Your task to perform on an android device: What is the recent news? Image 0: 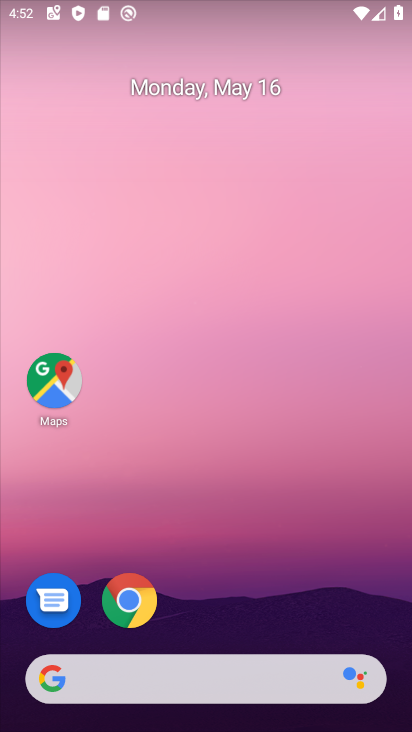
Step 0: drag from (179, 637) to (130, 78)
Your task to perform on an android device: What is the recent news? Image 1: 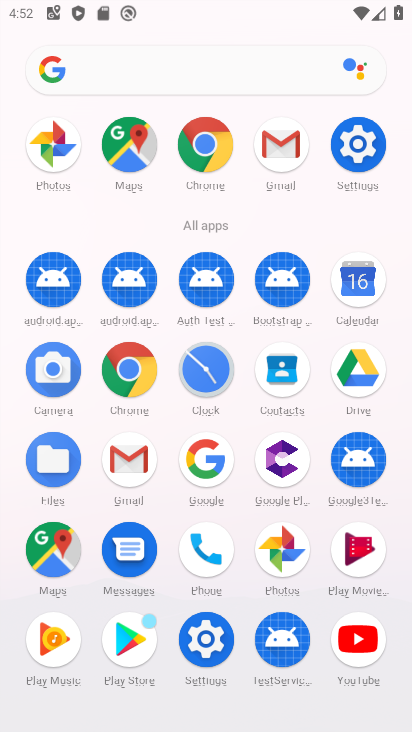
Step 1: click (208, 459)
Your task to perform on an android device: What is the recent news? Image 2: 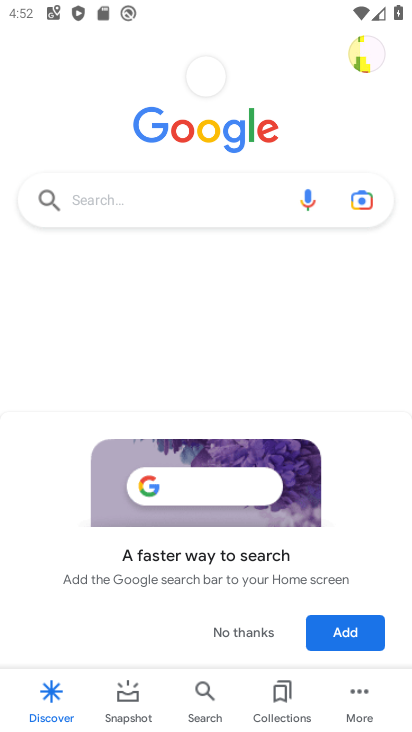
Step 2: click (103, 215)
Your task to perform on an android device: What is the recent news? Image 3: 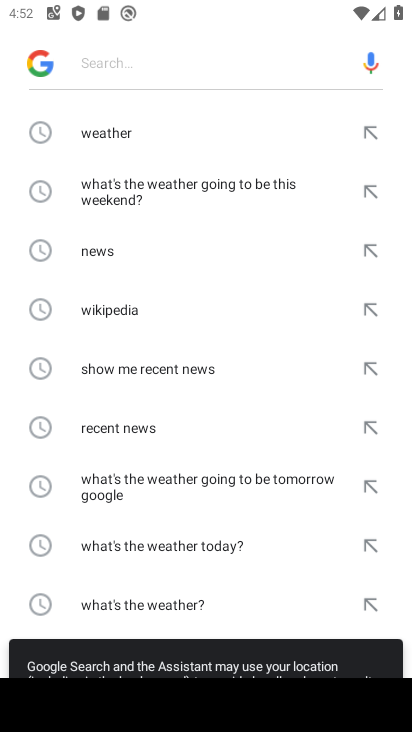
Step 3: click (107, 248)
Your task to perform on an android device: What is the recent news? Image 4: 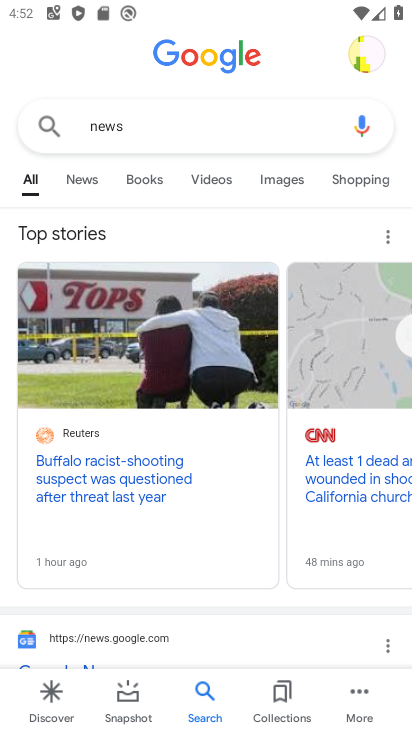
Step 4: task complete